Your task to perform on an android device: Go to Yahoo.com Image 0: 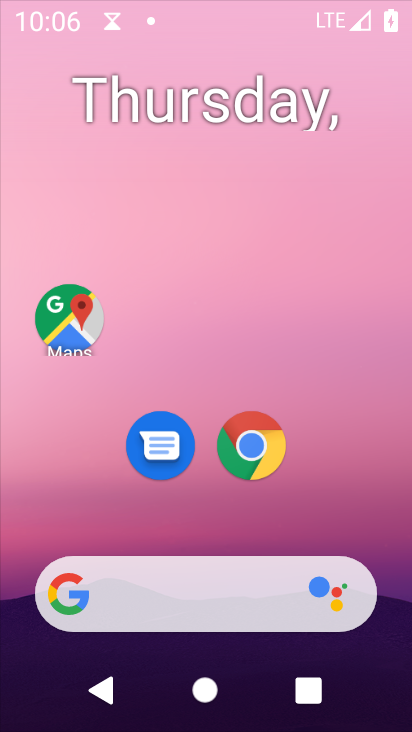
Step 0: click (287, 224)
Your task to perform on an android device: Go to Yahoo.com Image 1: 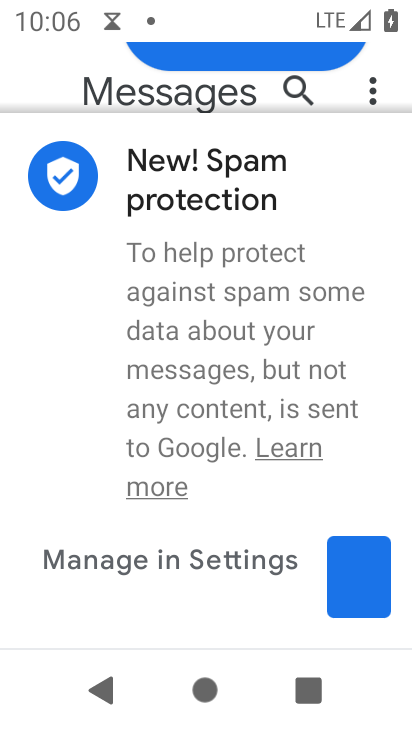
Step 1: press home button
Your task to perform on an android device: Go to Yahoo.com Image 2: 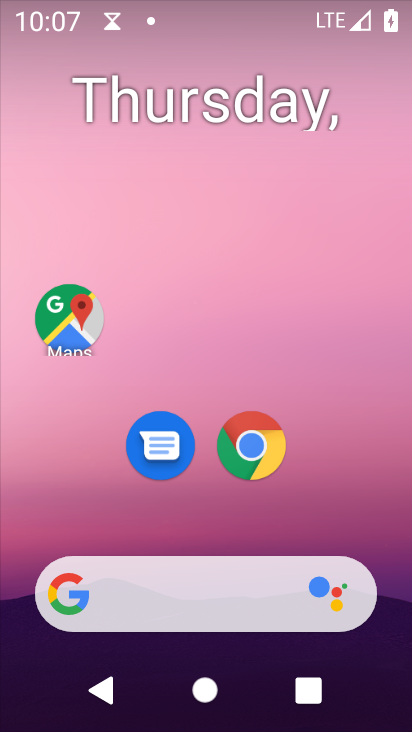
Step 2: click (271, 455)
Your task to perform on an android device: Go to Yahoo.com Image 3: 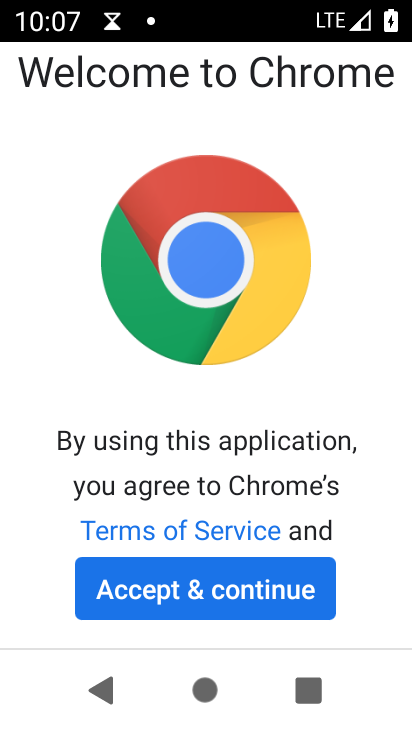
Step 3: click (271, 583)
Your task to perform on an android device: Go to Yahoo.com Image 4: 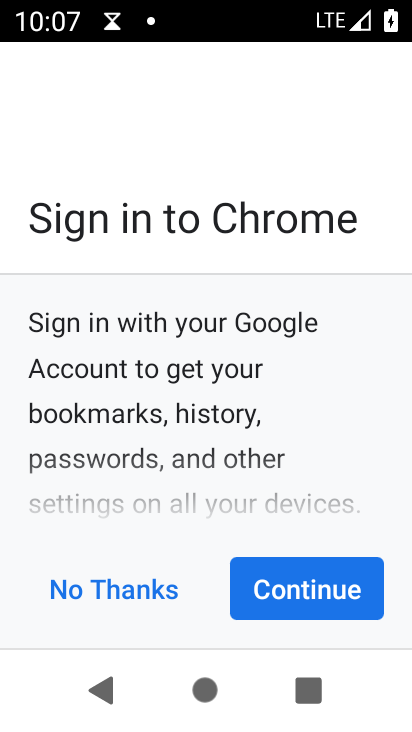
Step 4: click (271, 583)
Your task to perform on an android device: Go to Yahoo.com Image 5: 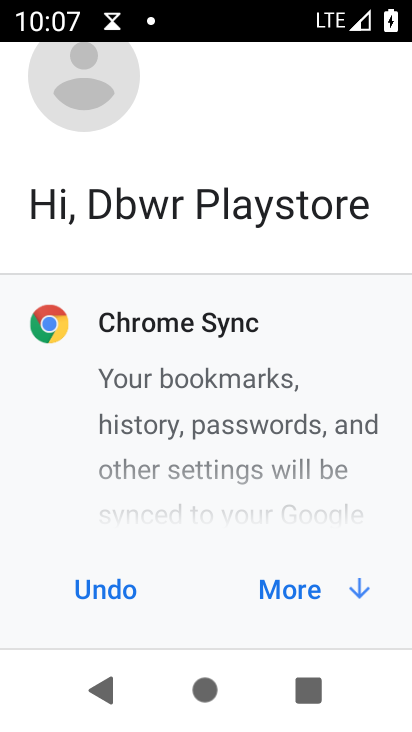
Step 5: click (276, 589)
Your task to perform on an android device: Go to Yahoo.com Image 6: 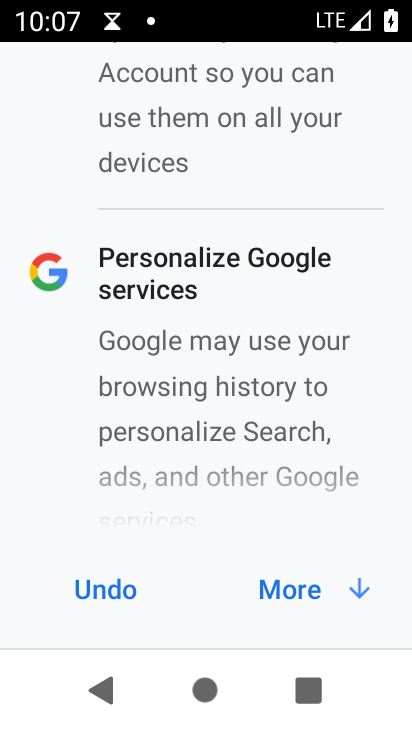
Step 6: click (276, 589)
Your task to perform on an android device: Go to Yahoo.com Image 7: 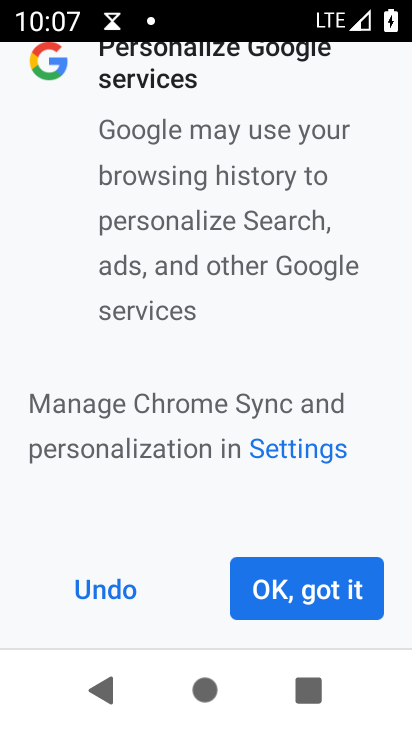
Step 7: click (276, 589)
Your task to perform on an android device: Go to Yahoo.com Image 8: 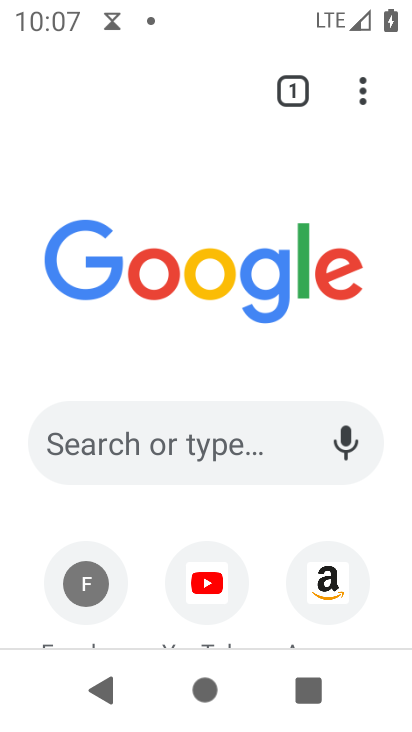
Step 8: drag from (262, 489) to (224, 193)
Your task to perform on an android device: Go to Yahoo.com Image 9: 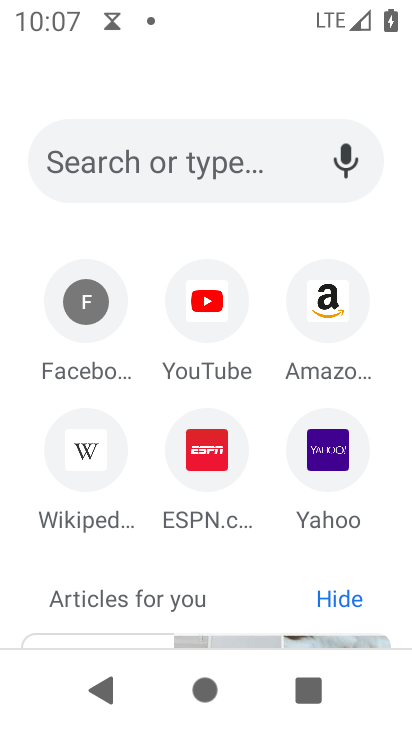
Step 9: click (324, 430)
Your task to perform on an android device: Go to Yahoo.com Image 10: 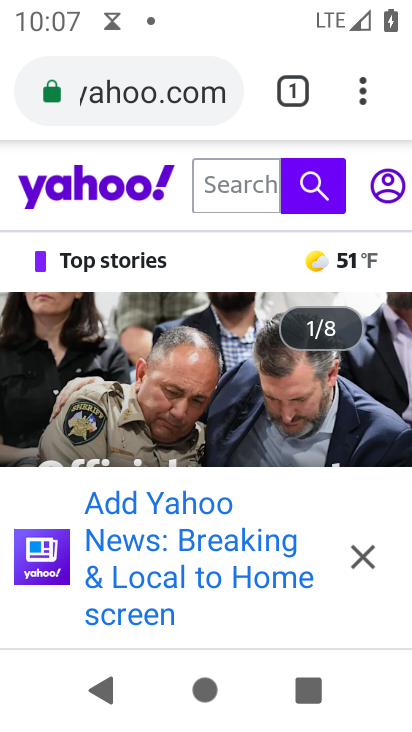
Step 10: task complete